Your task to perform on an android device: clear all cookies in the chrome app Image 0: 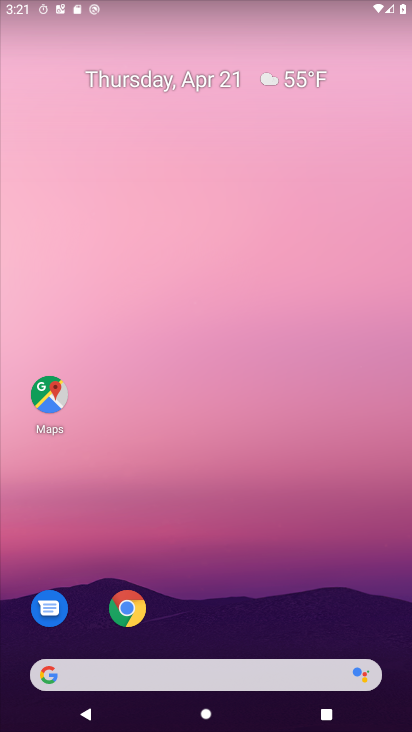
Step 0: drag from (389, 431) to (410, 322)
Your task to perform on an android device: clear all cookies in the chrome app Image 1: 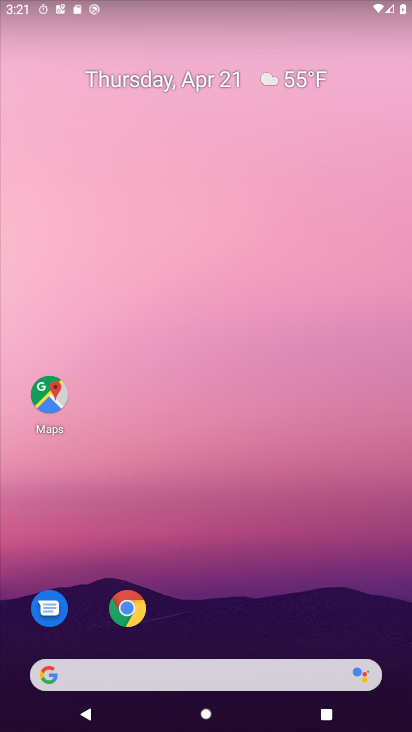
Step 1: drag from (287, 423) to (166, 67)
Your task to perform on an android device: clear all cookies in the chrome app Image 2: 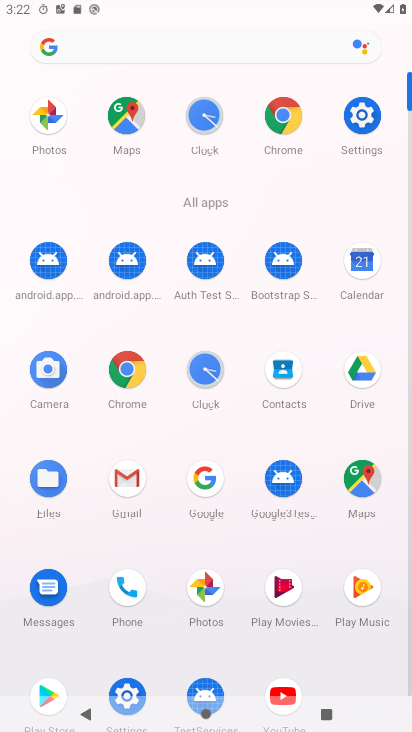
Step 2: click (289, 113)
Your task to perform on an android device: clear all cookies in the chrome app Image 3: 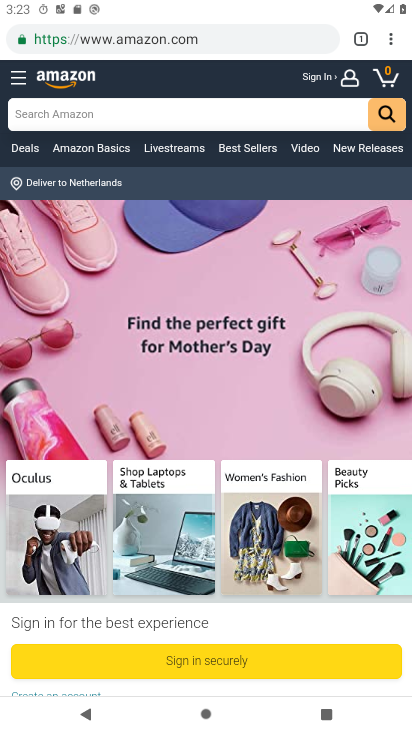
Step 3: click (392, 42)
Your task to perform on an android device: clear all cookies in the chrome app Image 4: 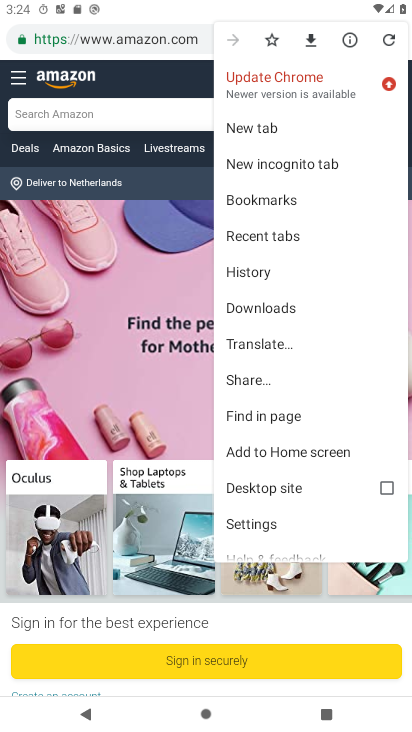
Step 4: click (251, 515)
Your task to perform on an android device: clear all cookies in the chrome app Image 5: 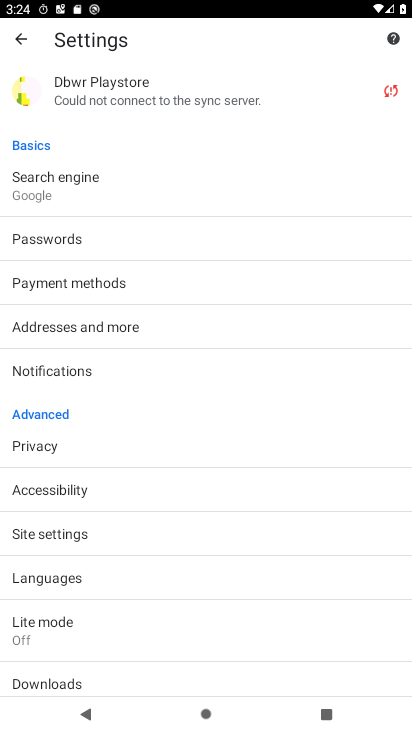
Step 5: click (72, 449)
Your task to perform on an android device: clear all cookies in the chrome app Image 6: 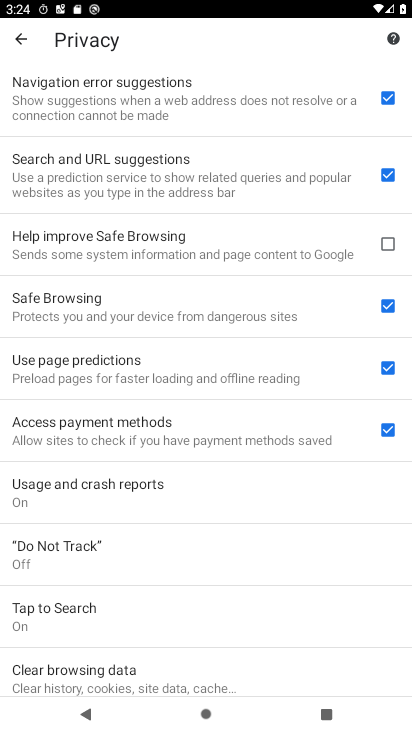
Step 6: click (103, 681)
Your task to perform on an android device: clear all cookies in the chrome app Image 7: 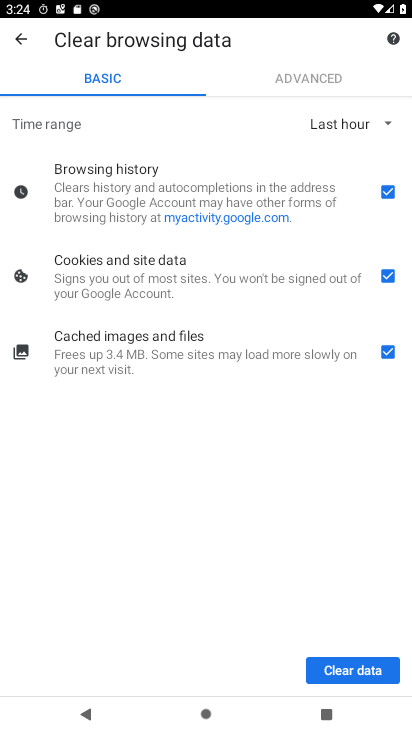
Step 7: click (349, 656)
Your task to perform on an android device: clear all cookies in the chrome app Image 8: 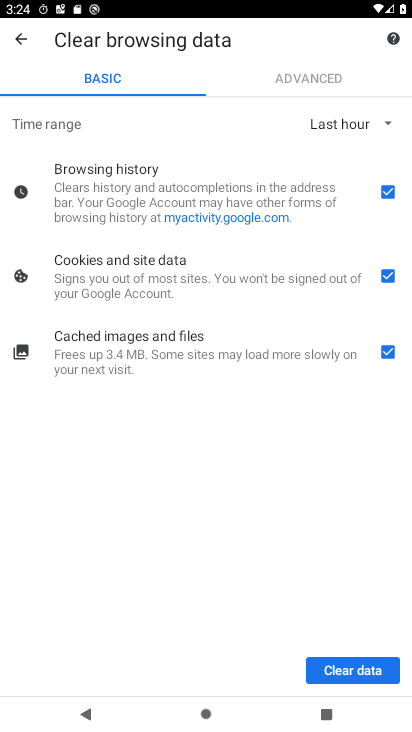
Step 8: click (344, 666)
Your task to perform on an android device: clear all cookies in the chrome app Image 9: 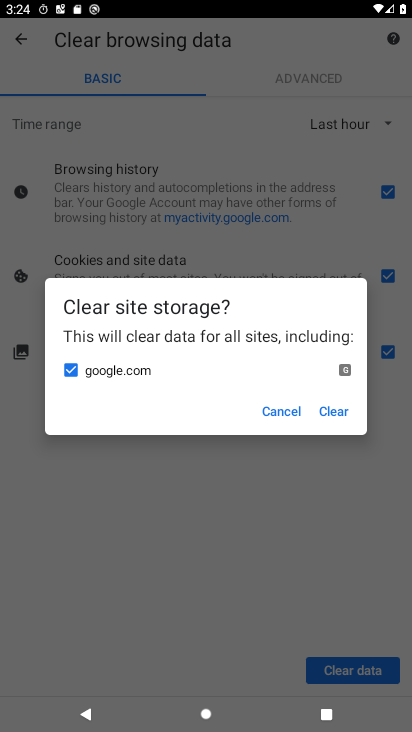
Step 9: click (333, 406)
Your task to perform on an android device: clear all cookies in the chrome app Image 10: 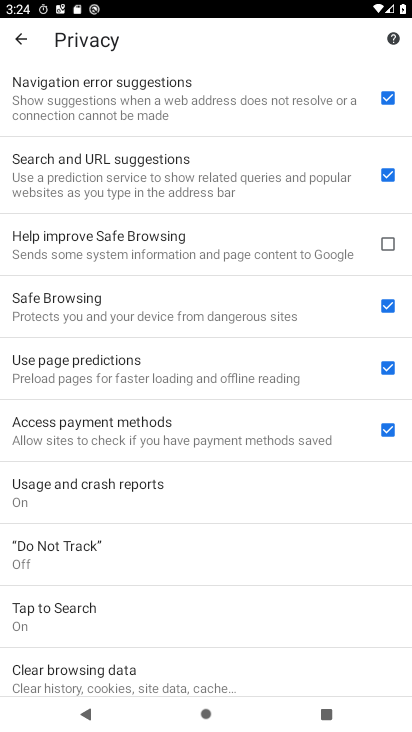
Step 10: task complete